Your task to perform on an android device: open app "Messenger Lite" Image 0: 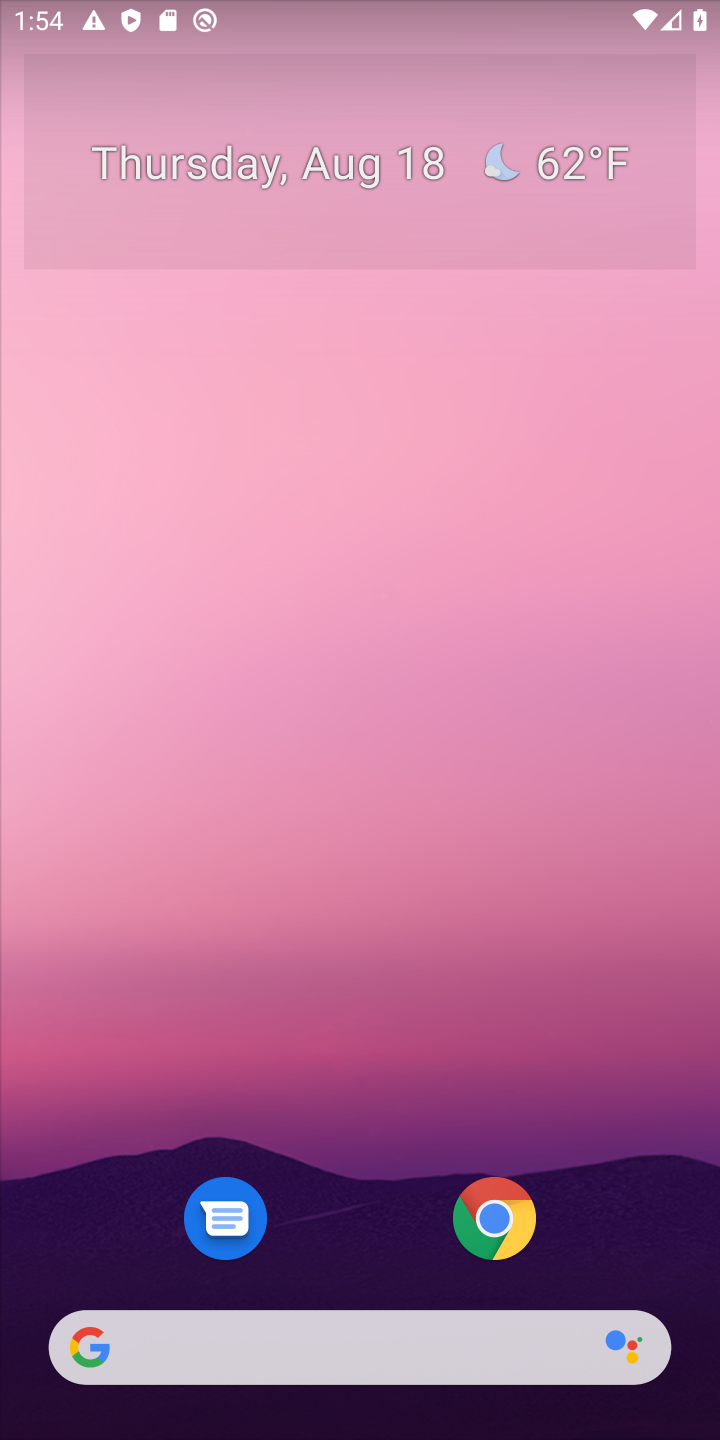
Step 0: drag from (331, 814) to (331, 226)
Your task to perform on an android device: open app "Messenger Lite" Image 1: 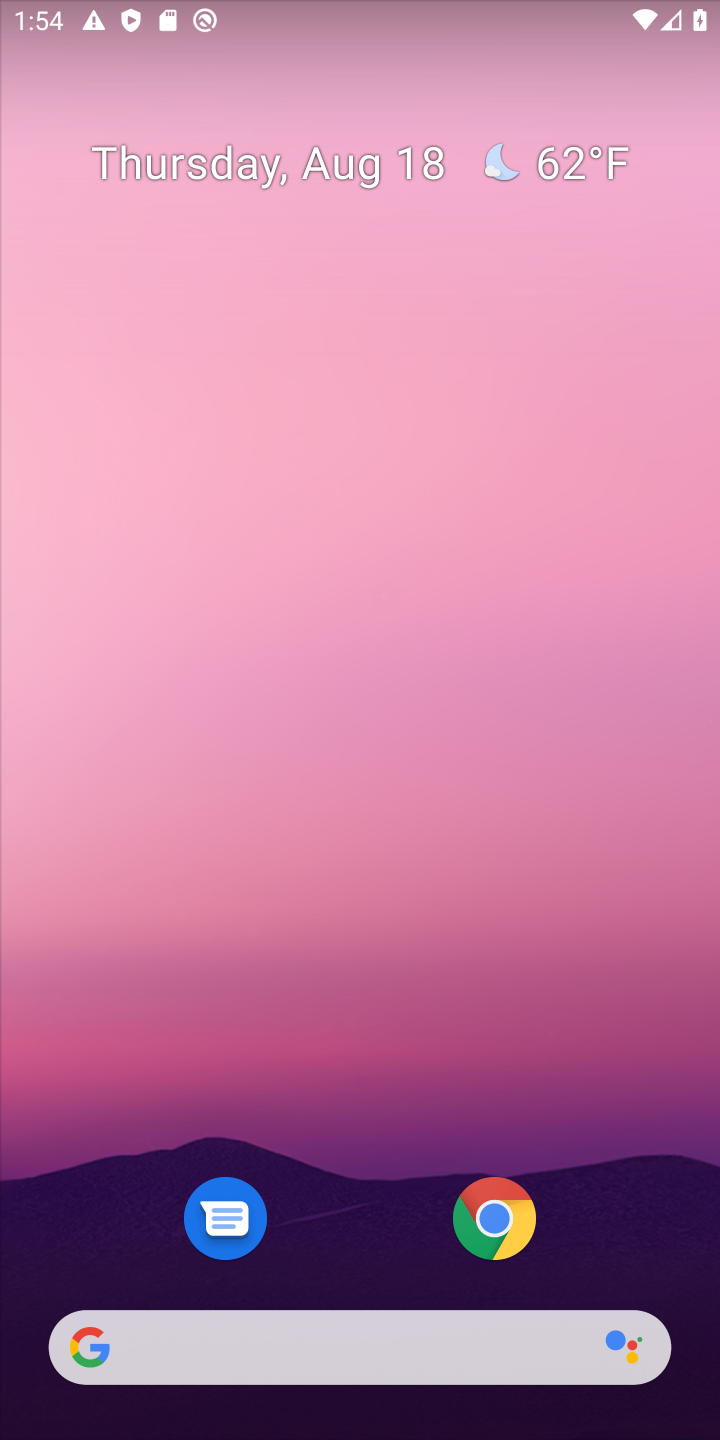
Step 1: drag from (382, 1147) to (379, 244)
Your task to perform on an android device: open app "Messenger Lite" Image 2: 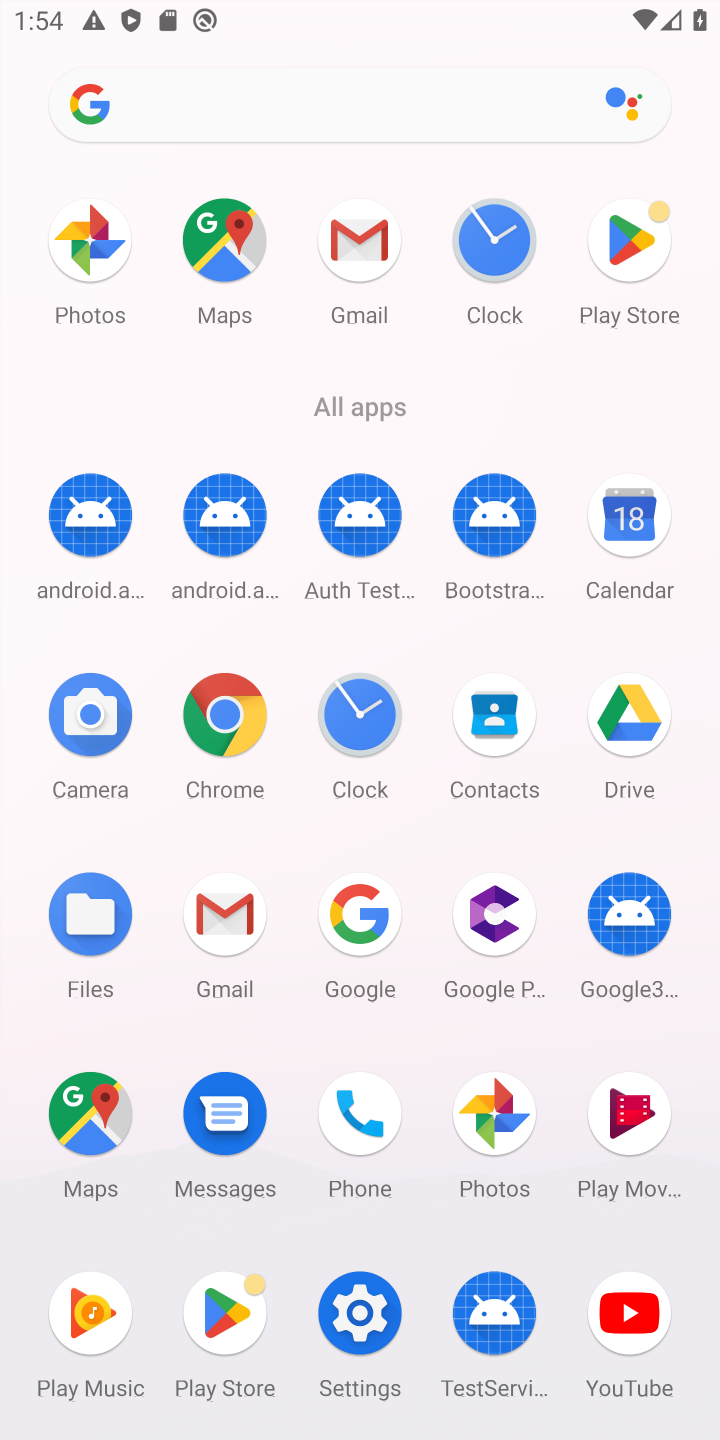
Step 2: click (632, 241)
Your task to perform on an android device: open app "Messenger Lite" Image 3: 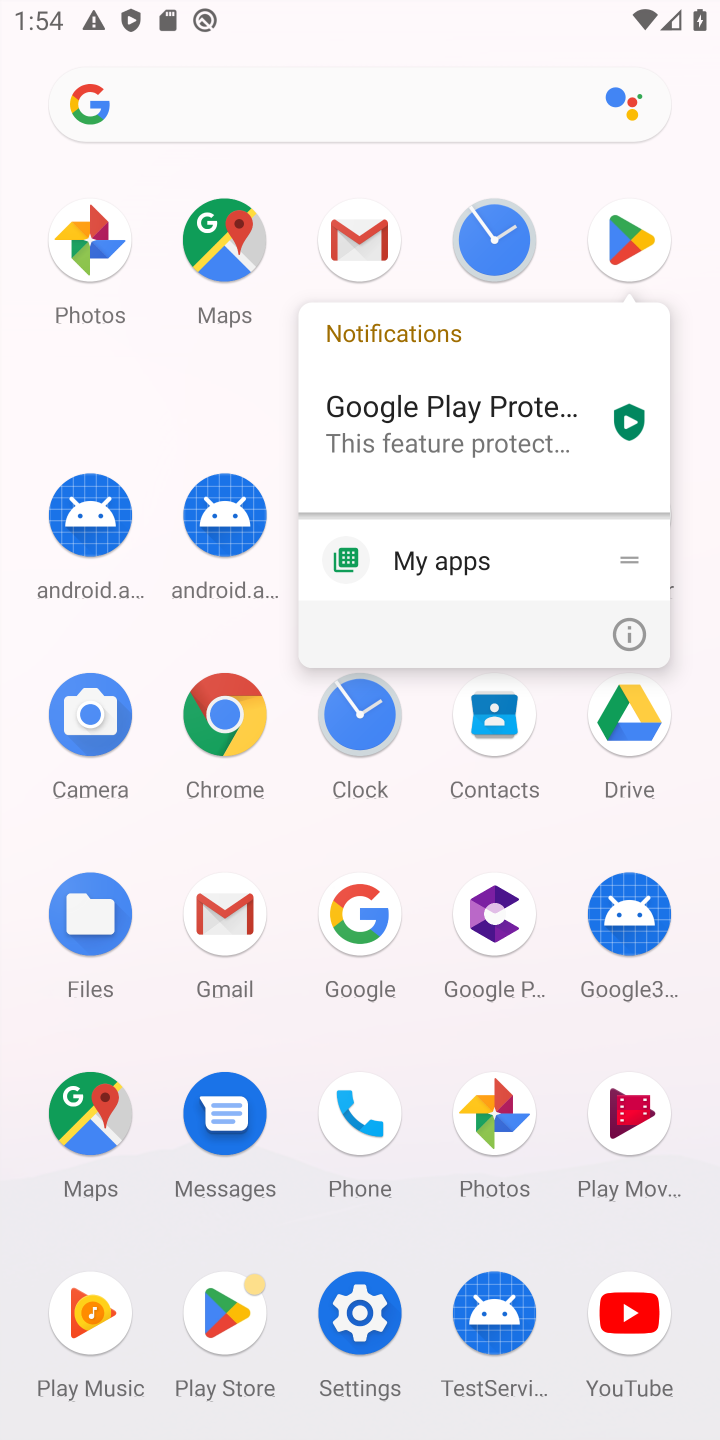
Step 3: click (632, 241)
Your task to perform on an android device: open app "Messenger Lite" Image 4: 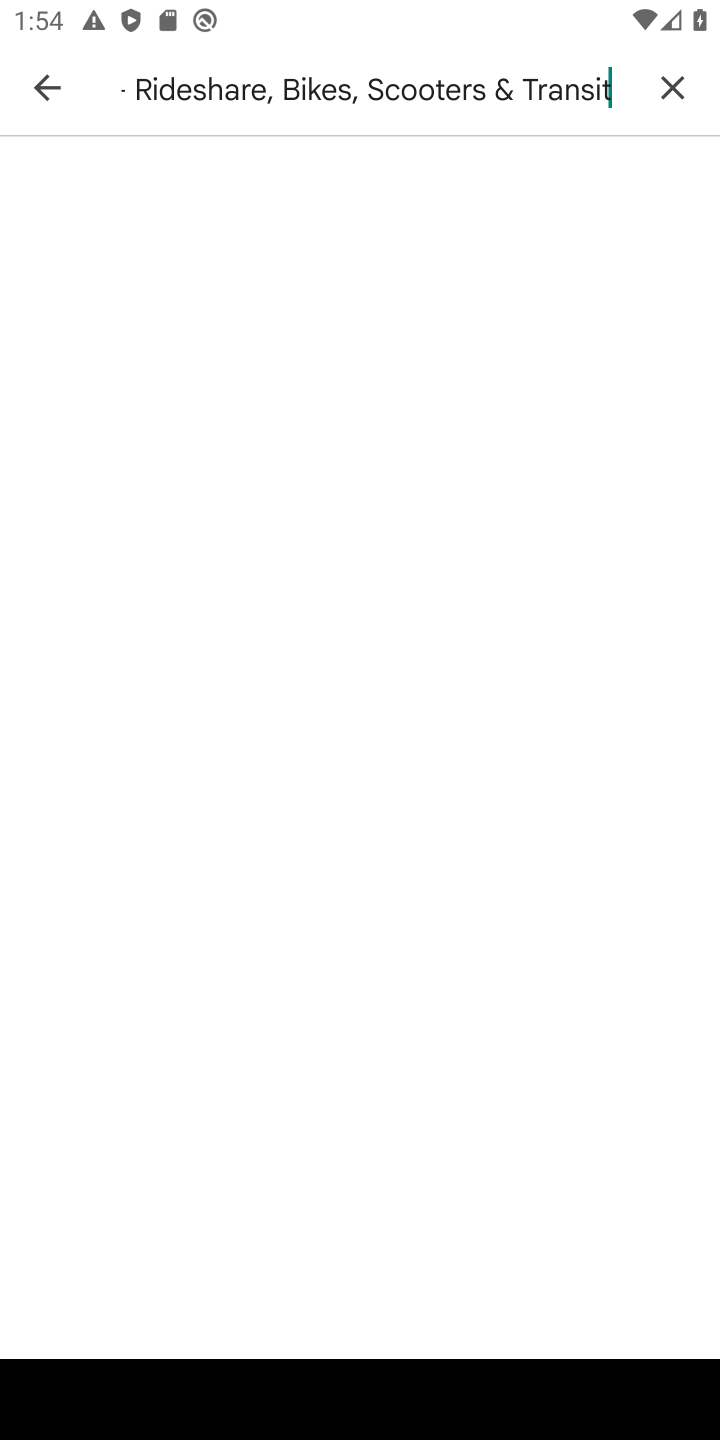
Step 4: click (719, 90)
Your task to perform on an android device: open app "Messenger Lite" Image 5: 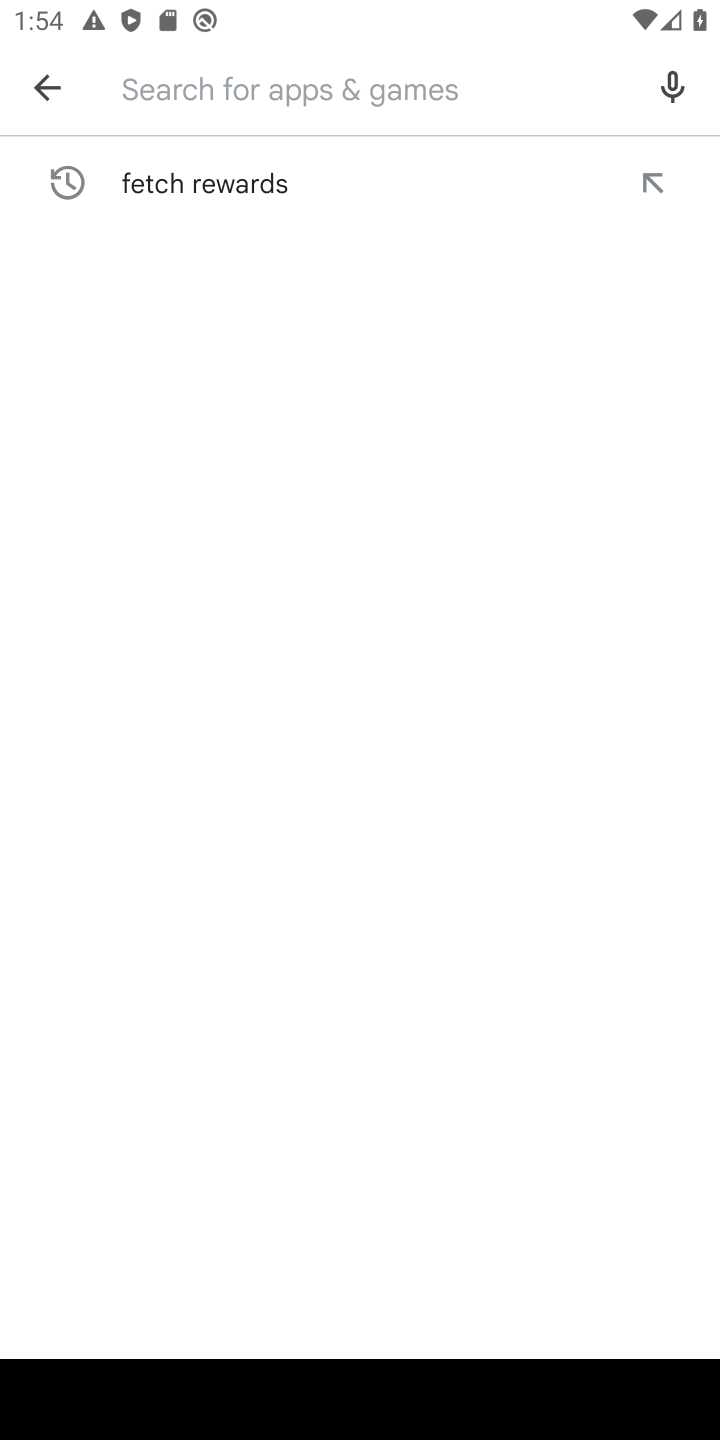
Step 5: type "Messenger Lite"
Your task to perform on an android device: open app "Messenger Lite" Image 6: 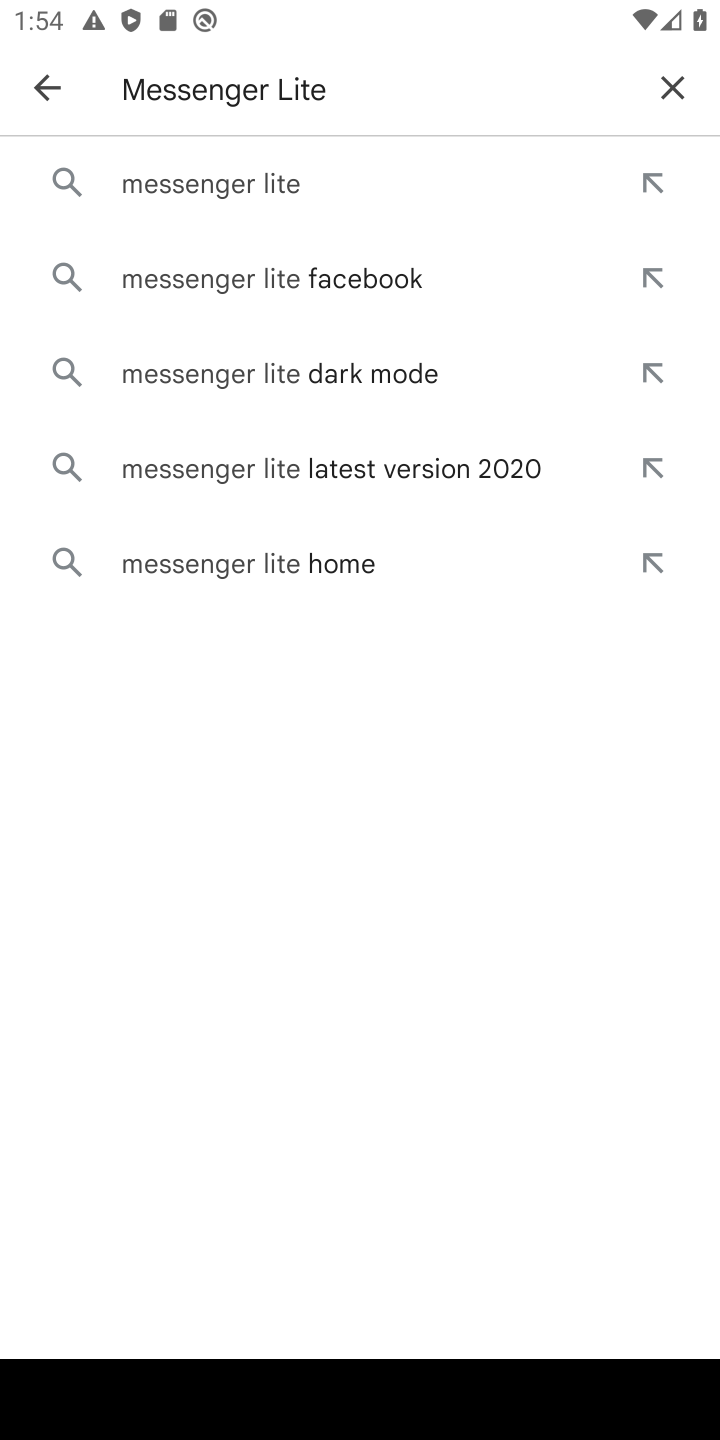
Step 6: click (231, 197)
Your task to perform on an android device: open app "Messenger Lite" Image 7: 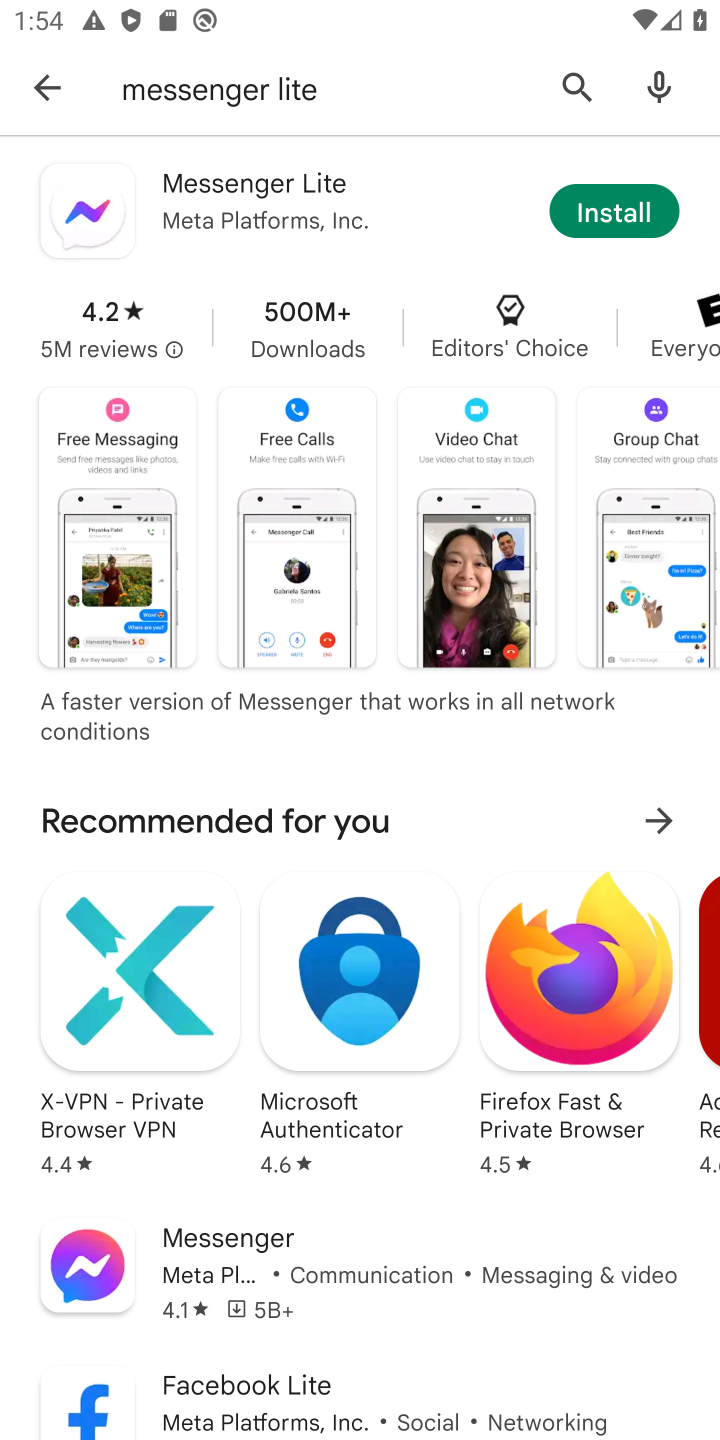
Step 7: task complete